Your task to perform on an android device: Do I have any events this weekend? Image 0: 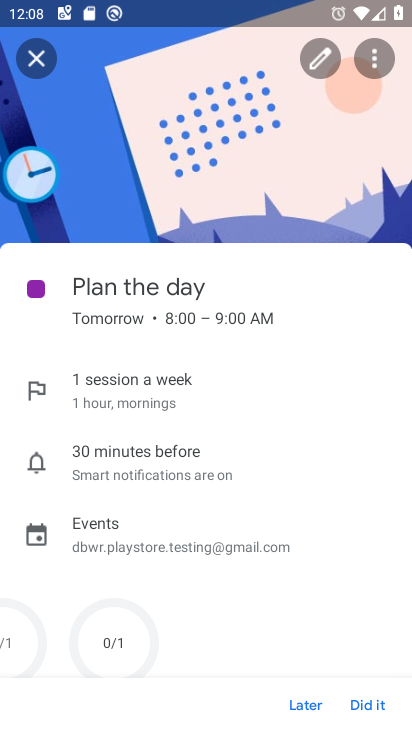
Step 0: press back button
Your task to perform on an android device: Do I have any events this weekend? Image 1: 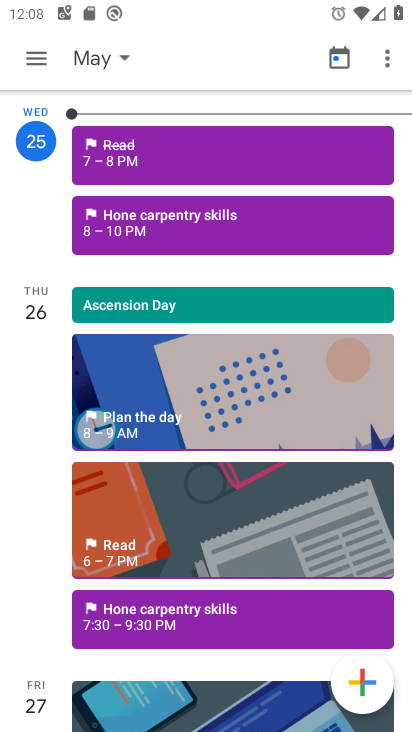
Step 1: click (129, 65)
Your task to perform on an android device: Do I have any events this weekend? Image 2: 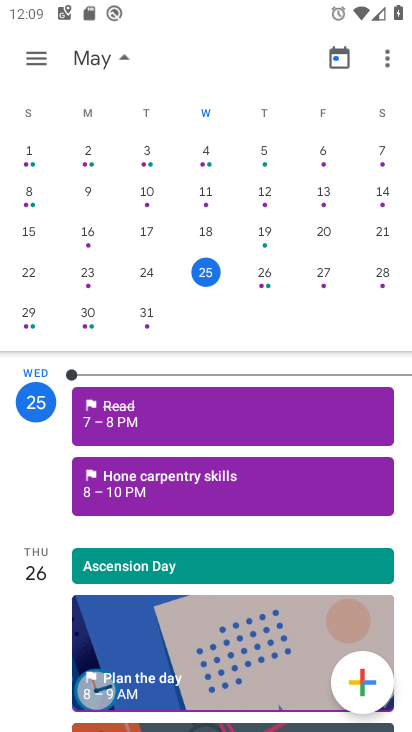
Step 2: click (76, 319)
Your task to perform on an android device: Do I have any events this weekend? Image 3: 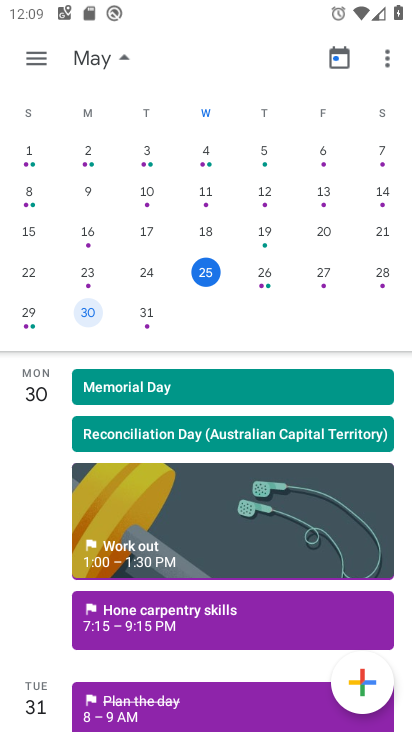
Step 3: task complete